Your task to perform on an android device: turn off improve location accuracy Image 0: 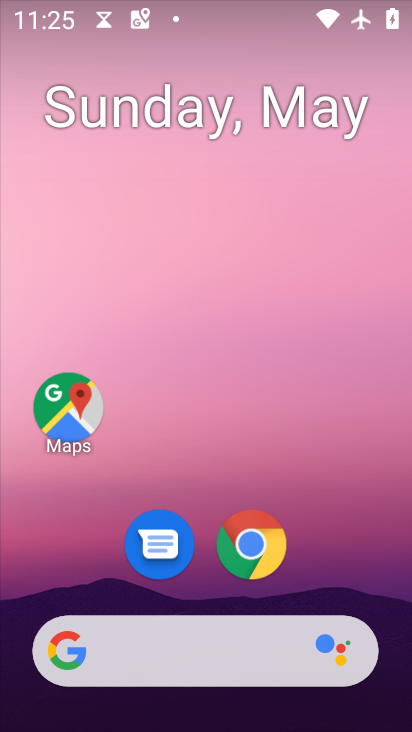
Step 0: drag from (255, 577) to (291, 315)
Your task to perform on an android device: turn off improve location accuracy Image 1: 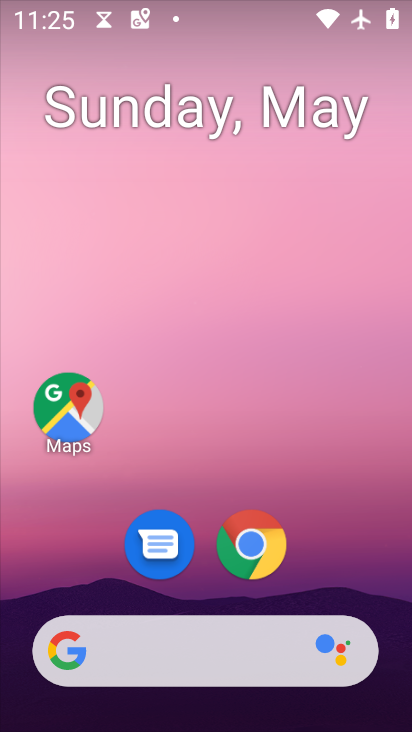
Step 1: drag from (341, 584) to (328, 240)
Your task to perform on an android device: turn off improve location accuracy Image 2: 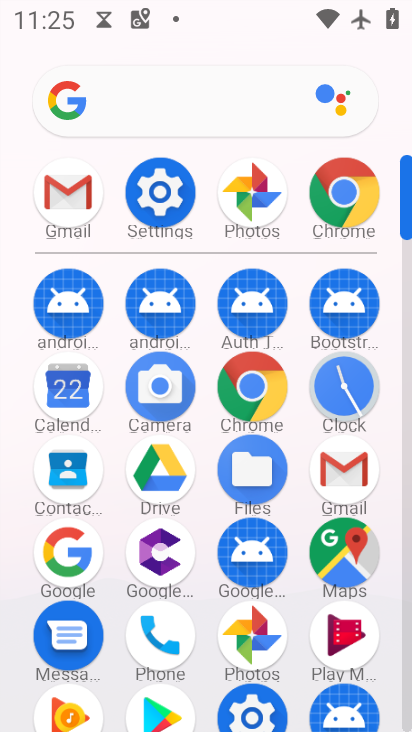
Step 2: click (151, 181)
Your task to perform on an android device: turn off improve location accuracy Image 3: 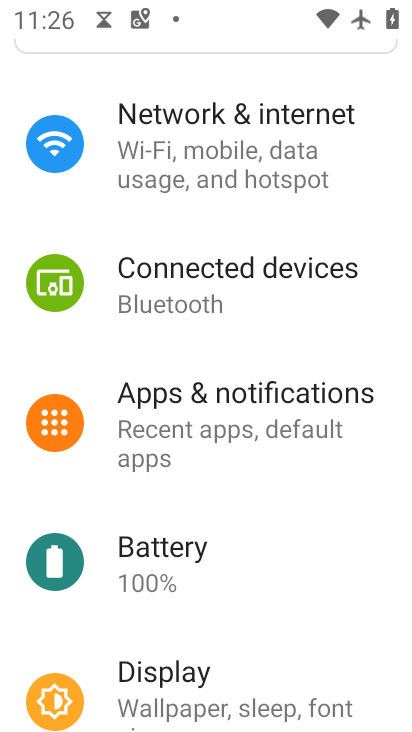
Step 3: drag from (205, 620) to (222, 208)
Your task to perform on an android device: turn off improve location accuracy Image 4: 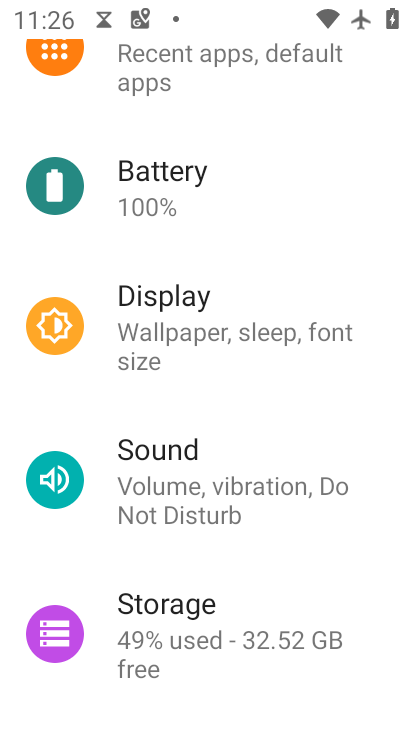
Step 4: drag from (197, 634) to (229, 149)
Your task to perform on an android device: turn off improve location accuracy Image 5: 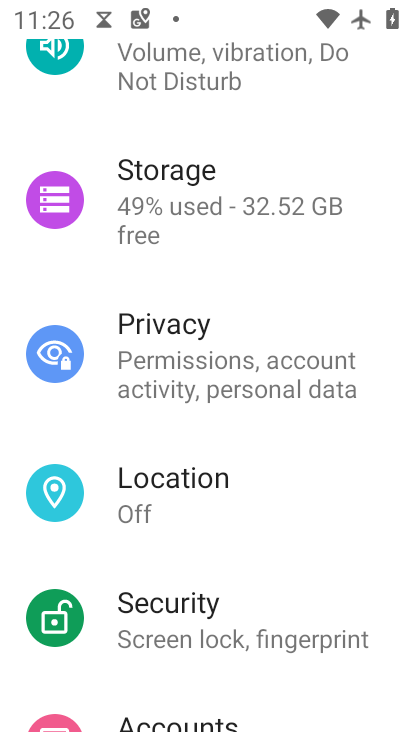
Step 5: click (194, 497)
Your task to perform on an android device: turn off improve location accuracy Image 6: 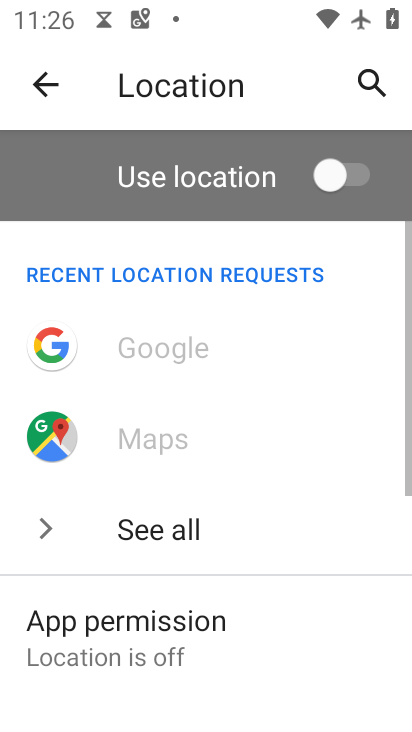
Step 6: drag from (250, 660) to (253, 254)
Your task to perform on an android device: turn off improve location accuracy Image 7: 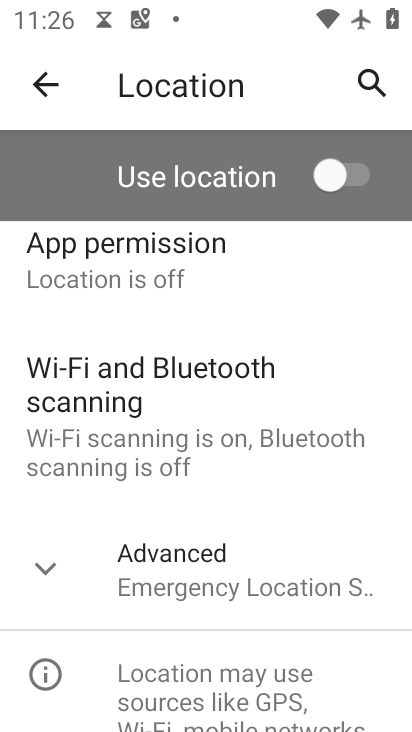
Step 7: click (230, 558)
Your task to perform on an android device: turn off improve location accuracy Image 8: 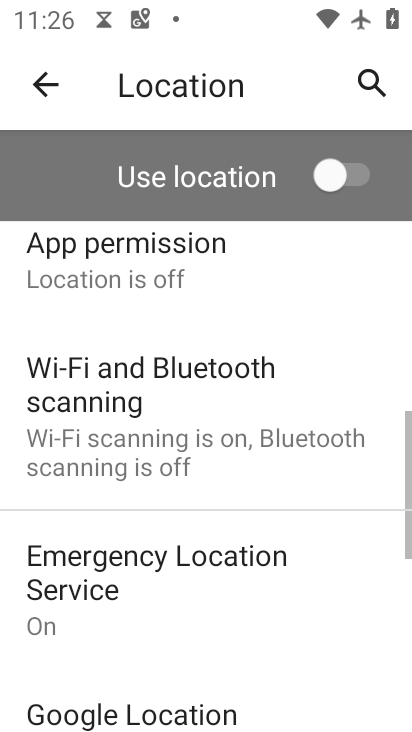
Step 8: drag from (214, 634) to (267, 307)
Your task to perform on an android device: turn off improve location accuracy Image 9: 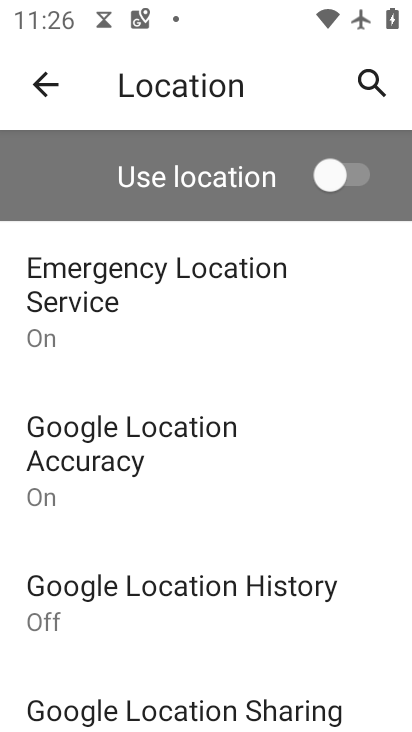
Step 9: click (146, 458)
Your task to perform on an android device: turn off improve location accuracy Image 10: 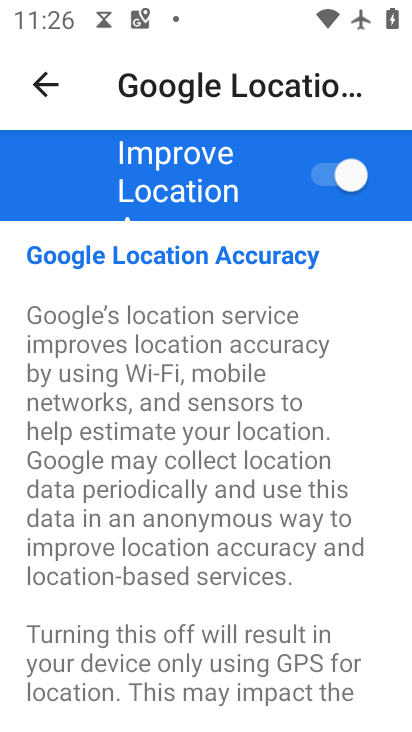
Step 10: click (336, 182)
Your task to perform on an android device: turn off improve location accuracy Image 11: 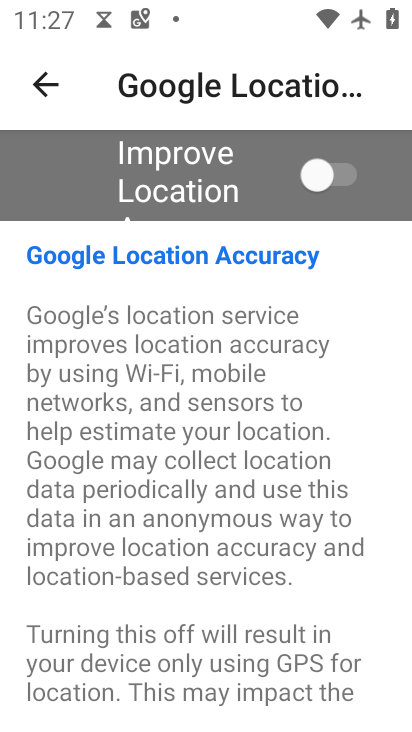
Step 11: task complete